Your task to perform on an android device: turn off location Image 0: 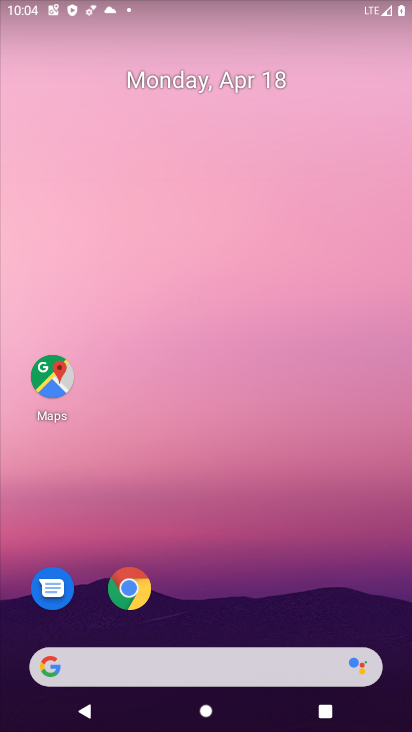
Step 0: drag from (391, 652) to (362, 85)
Your task to perform on an android device: turn off location Image 1: 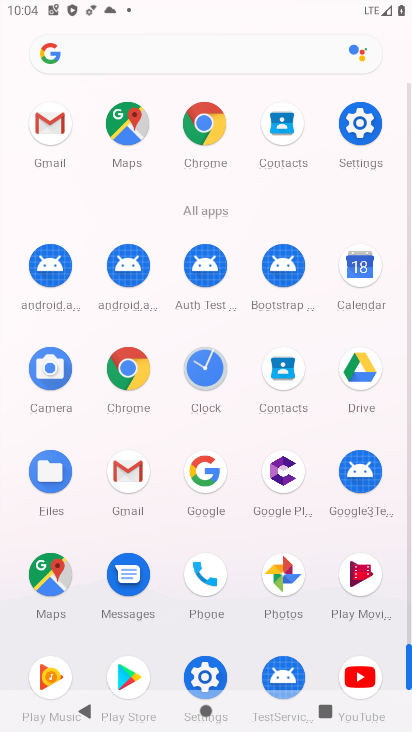
Step 1: click (205, 673)
Your task to perform on an android device: turn off location Image 2: 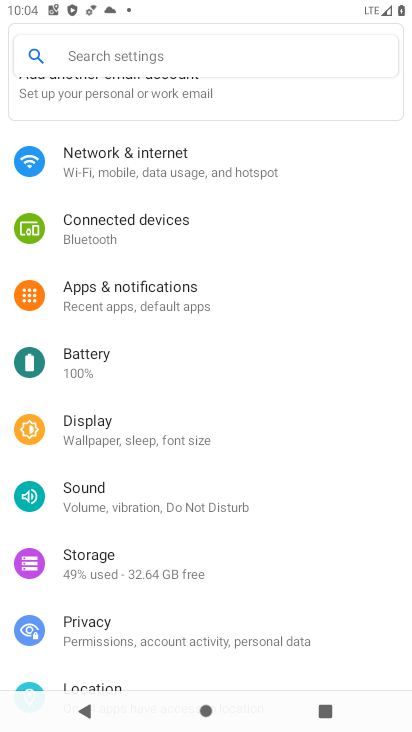
Step 2: drag from (335, 594) to (313, 303)
Your task to perform on an android device: turn off location Image 3: 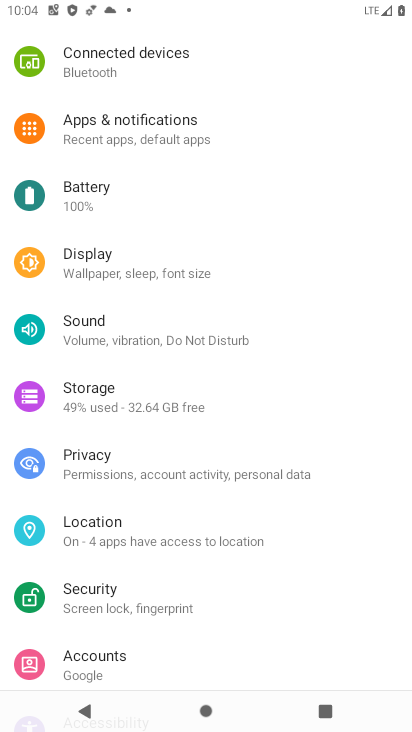
Step 3: click (95, 528)
Your task to perform on an android device: turn off location Image 4: 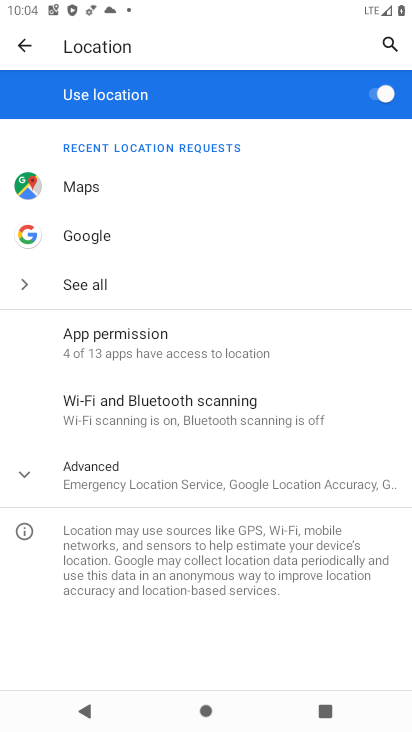
Step 4: click (373, 92)
Your task to perform on an android device: turn off location Image 5: 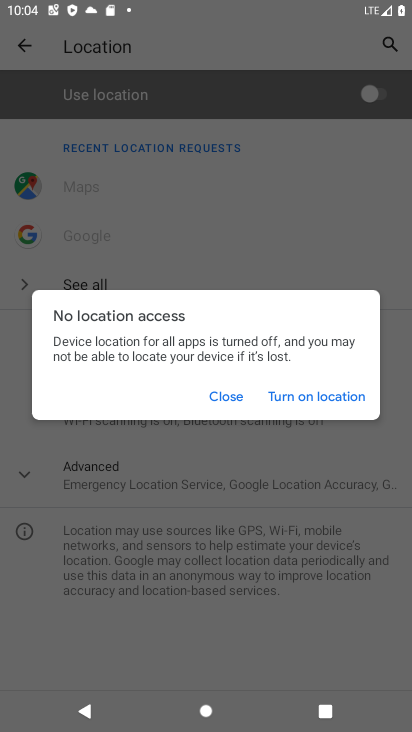
Step 5: click (225, 399)
Your task to perform on an android device: turn off location Image 6: 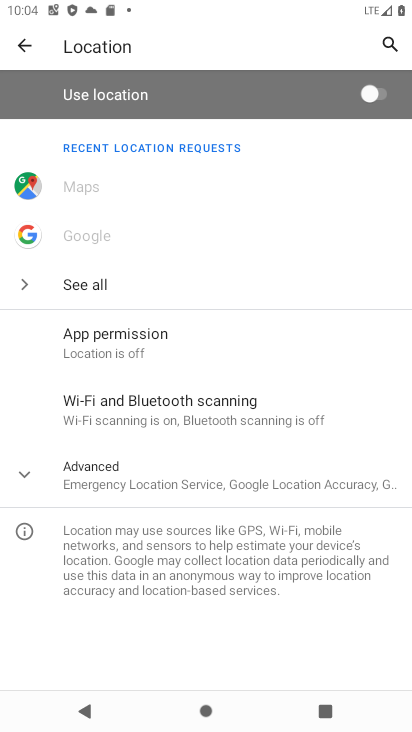
Step 6: task complete